Your task to perform on an android device: Open Amazon Image 0: 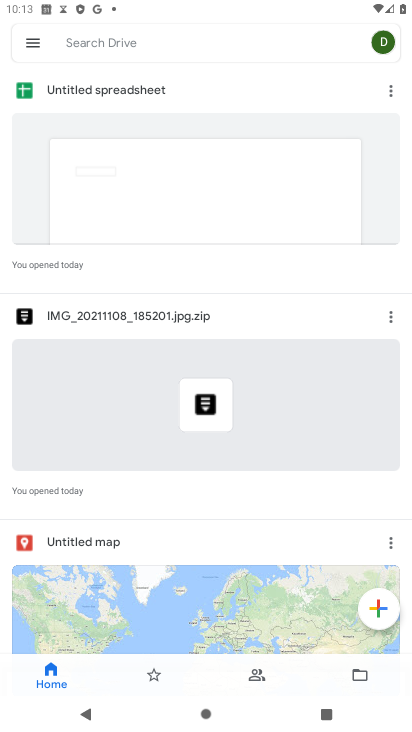
Step 0: press home button
Your task to perform on an android device: Open Amazon Image 1: 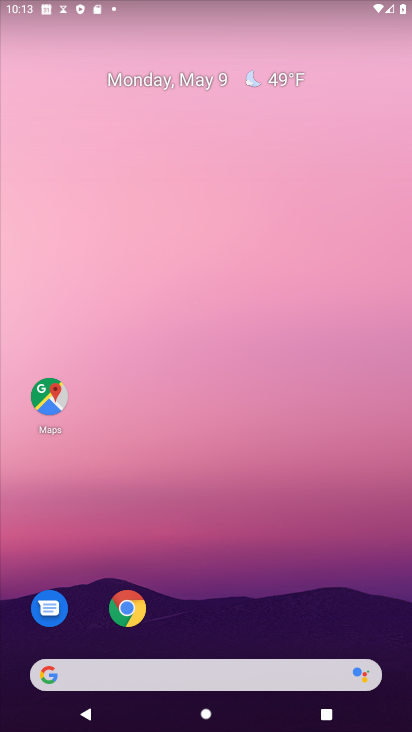
Step 1: click (136, 614)
Your task to perform on an android device: Open Amazon Image 2: 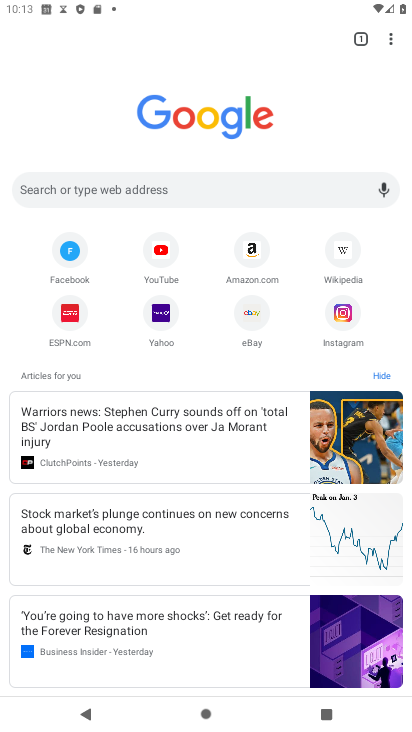
Step 2: click (249, 261)
Your task to perform on an android device: Open Amazon Image 3: 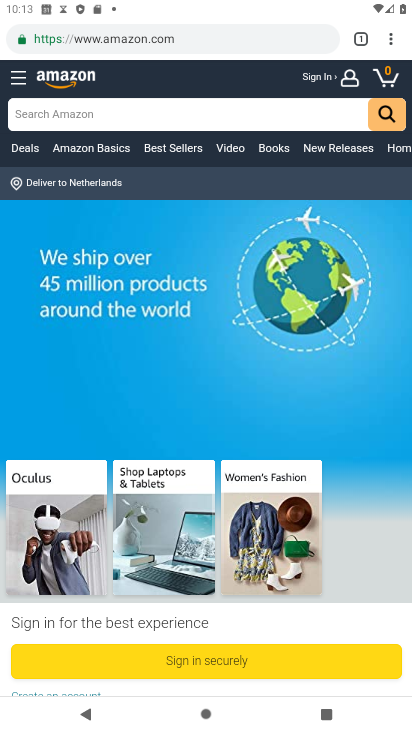
Step 3: task complete